Your task to perform on an android device: set an alarm Image 0: 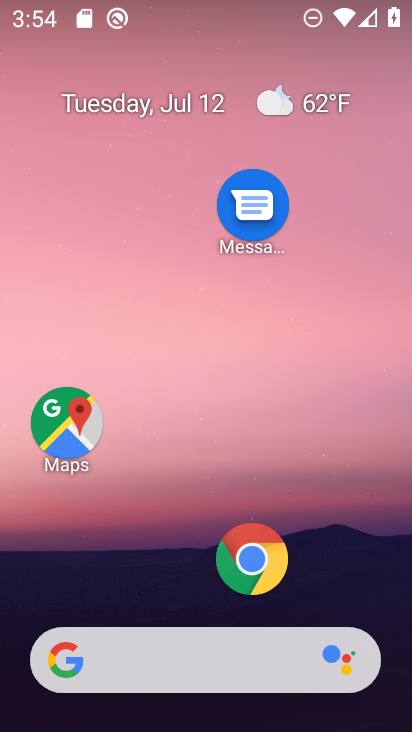
Step 0: drag from (154, 531) to (231, 4)
Your task to perform on an android device: set an alarm Image 1: 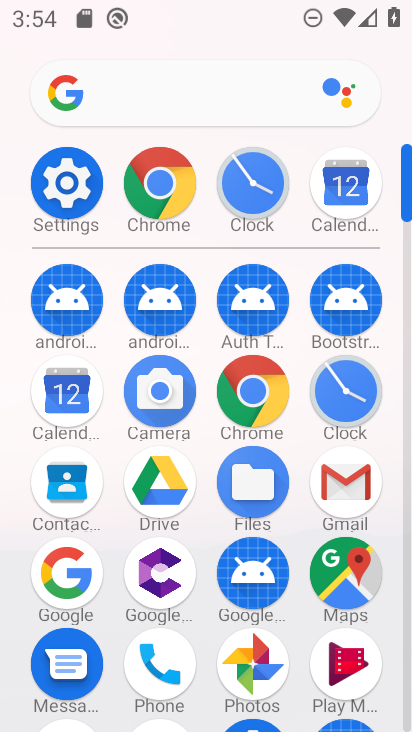
Step 1: click (349, 407)
Your task to perform on an android device: set an alarm Image 2: 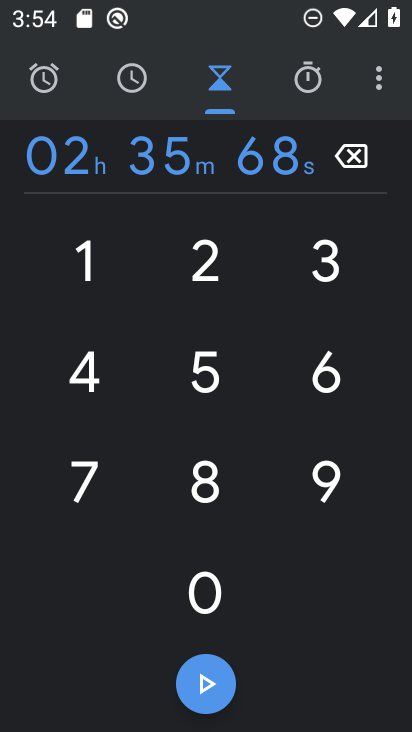
Step 2: click (47, 72)
Your task to perform on an android device: set an alarm Image 3: 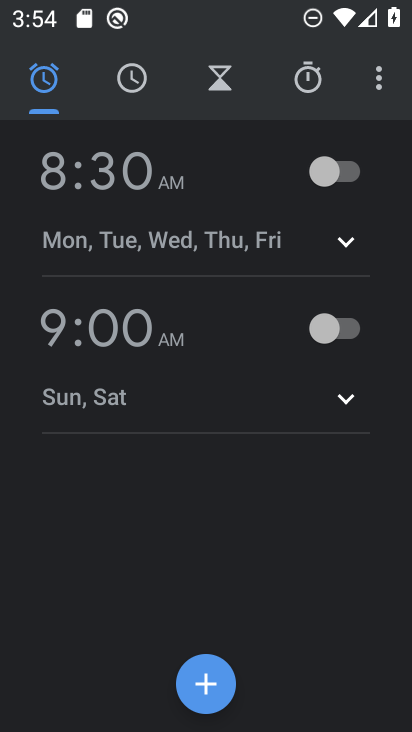
Step 3: click (341, 170)
Your task to perform on an android device: set an alarm Image 4: 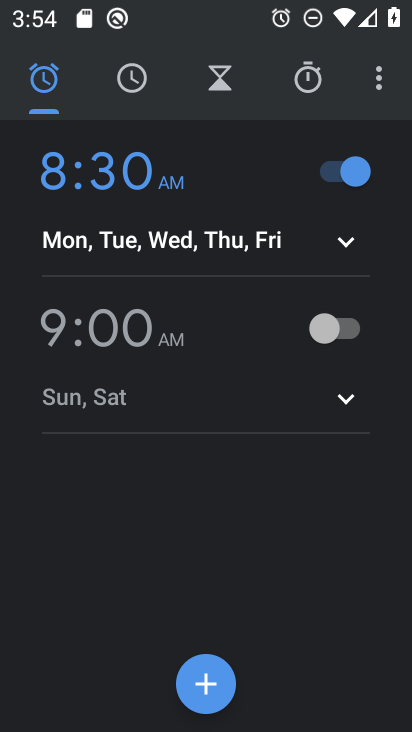
Step 4: click (325, 330)
Your task to perform on an android device: set an alarm Image 5: 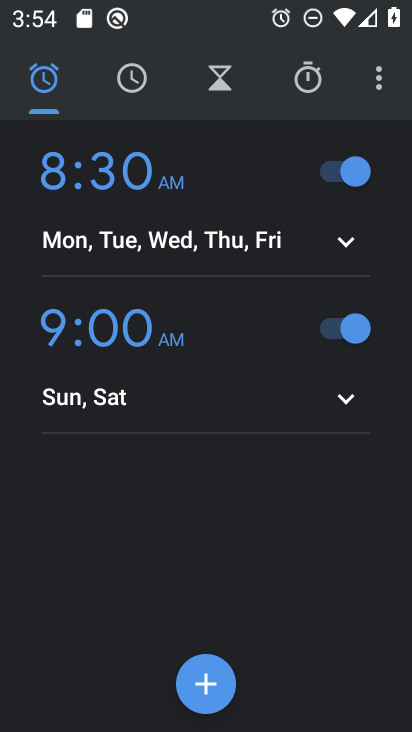
Step 5: task complete